Your task to perform on an android device: check data usage Image 0: 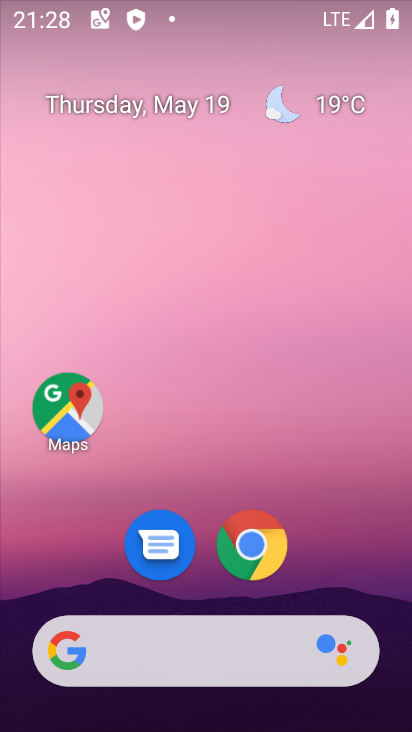
Step 0: drag from (346, 518) to (332, 203)
Your task to perform on an android device: check data usage Image 1: 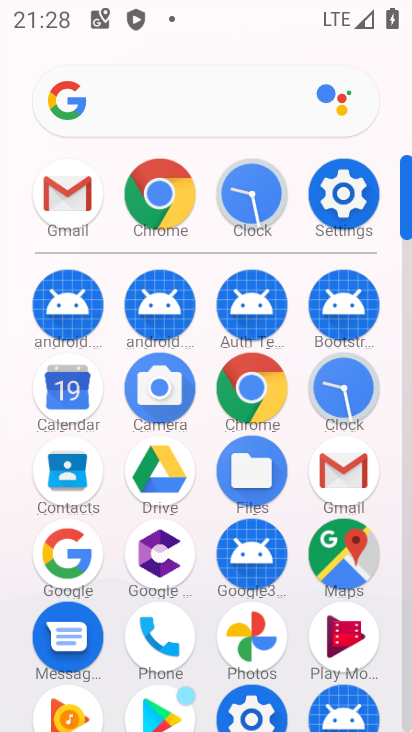
Step 1: click (347, 202)
Your task to perform on an android device: check data usage Image 2: 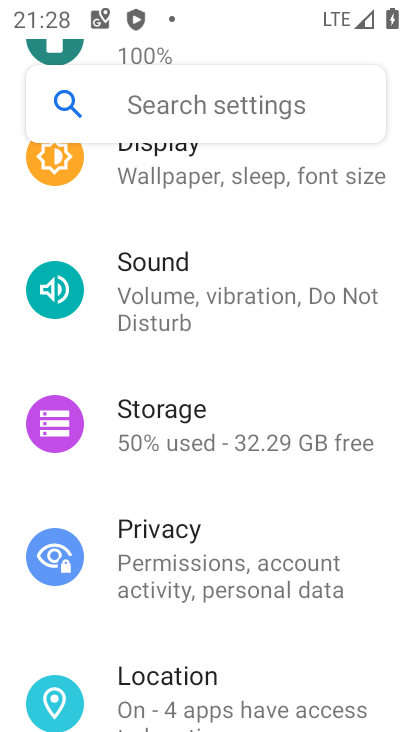
Step 2: drag from (226, 281) to (246, 524)
Your task to perform on an android device: check data usage Image 3: 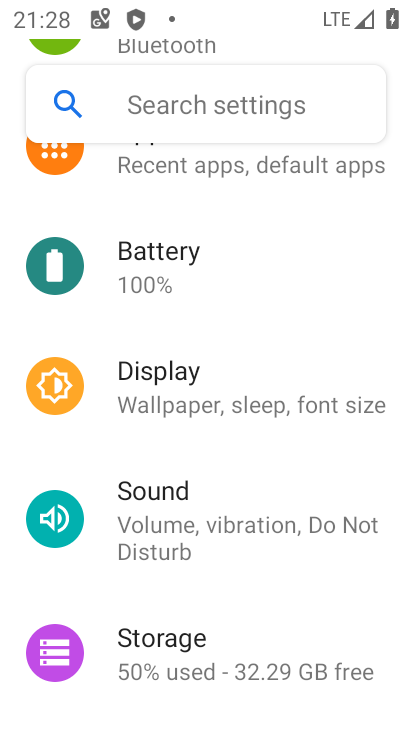
Step 3: drag from (231, 228) to (270, 623)
Your task to perform on an android device: check data usage Image 4: 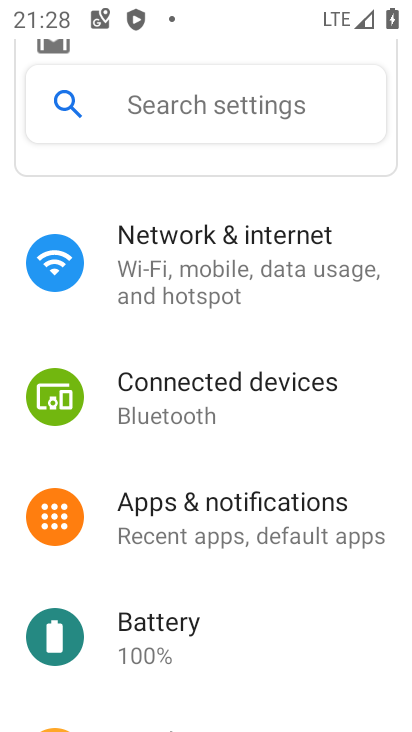
Step 4: click (207, 252)
Your task to perform on an android device: check data usage Image 5: 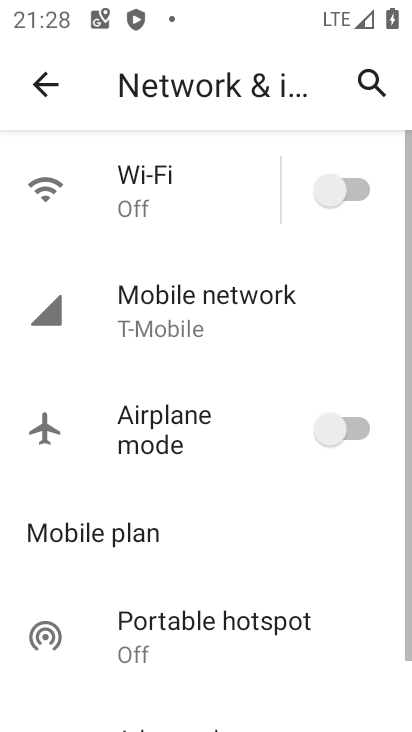
Step 5: click (244, 279)
Your task to perform on an android device: check data usage Image 6: 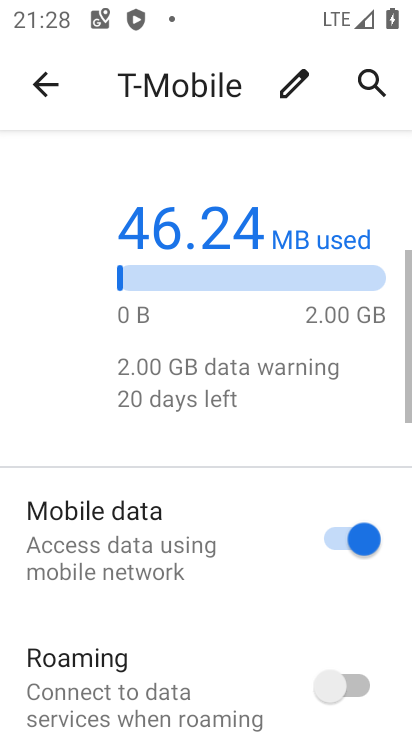
Step 6: task complete